Your task to perform on an android device: Go to Reddit.com Image 0: 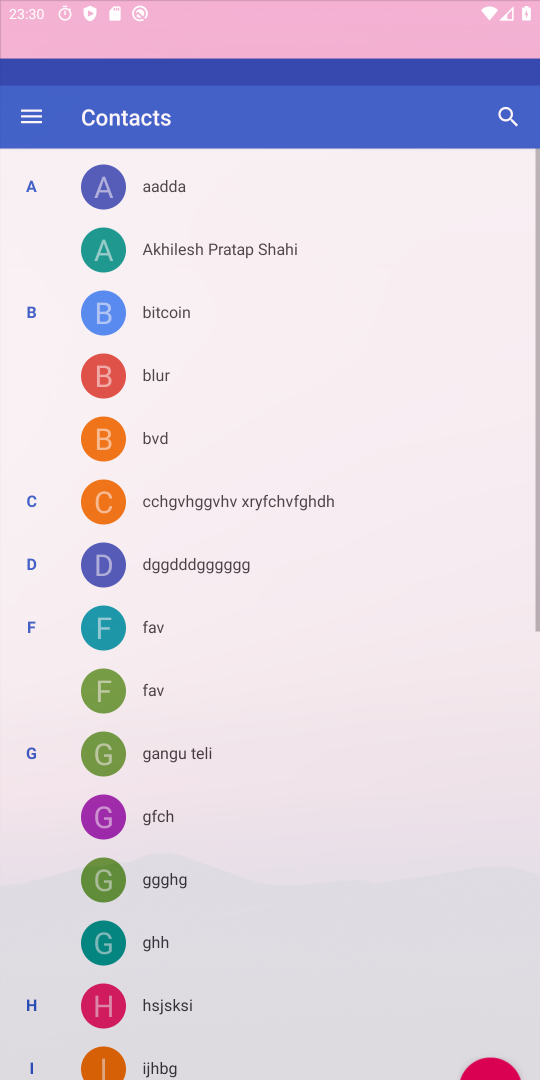
Step 0: press home button
Your task to perform on an android device: Go to Reddit.com Image 1: 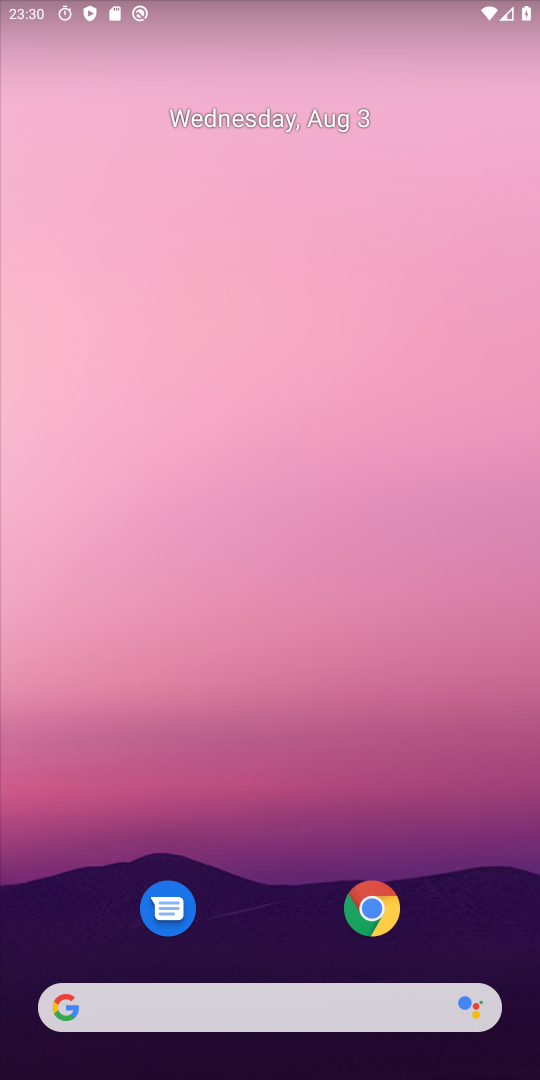
Step 1: drag from (236, 1017) to (137, 373)
Your task to perform on an android device: Go to Reddit.com Image 2: 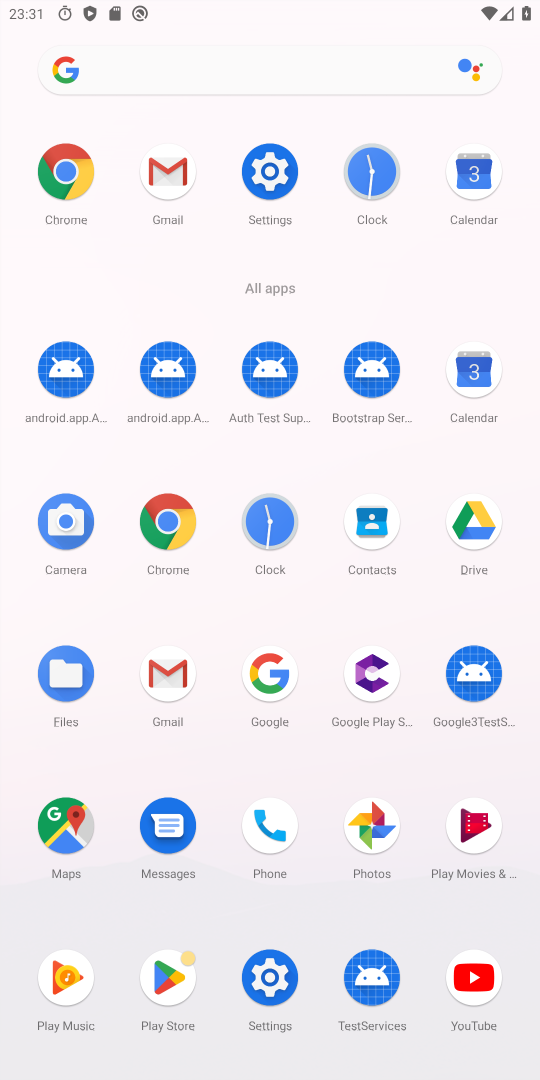
Step 2: click (66, 191)
Your task to perform on an android device: Go to Reddit.com Image 3: 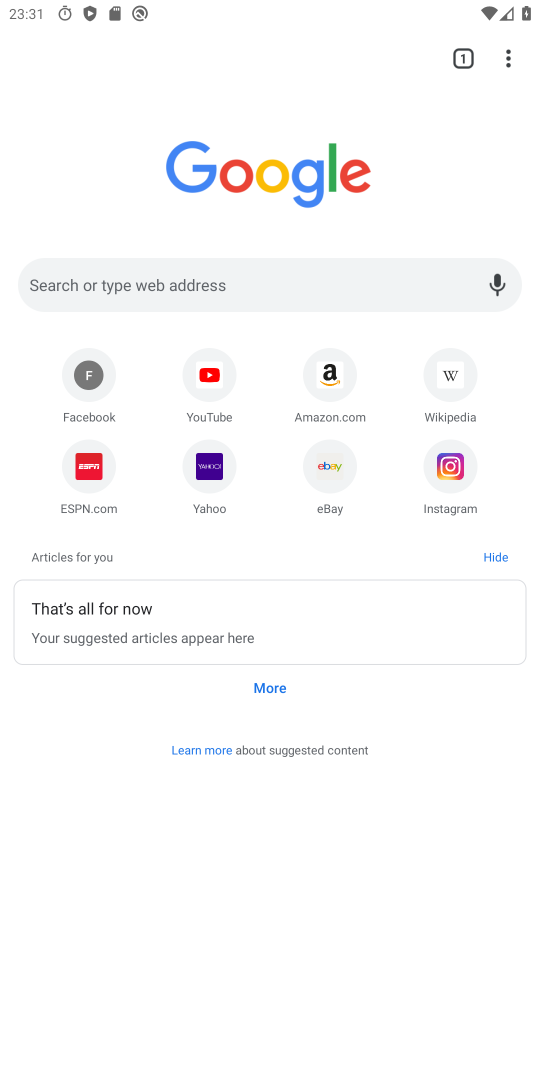
Step 3: click (143, 280)
Your task to perform on an android device: Go to Reddit.com Image 4: 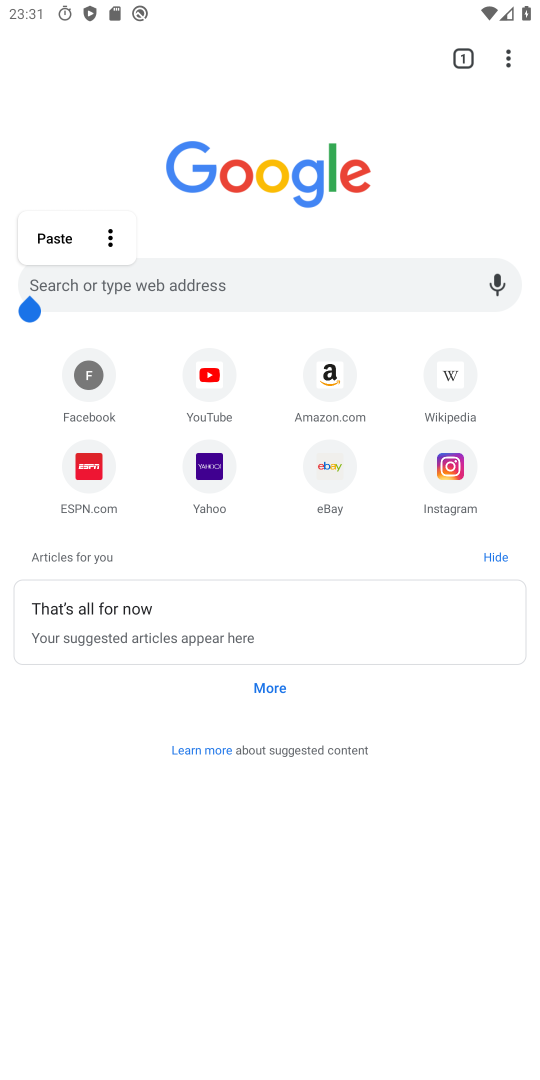
Step 4: click (158, 291)
Your task to perform on an android device: Go to Reddit.com Image 5: 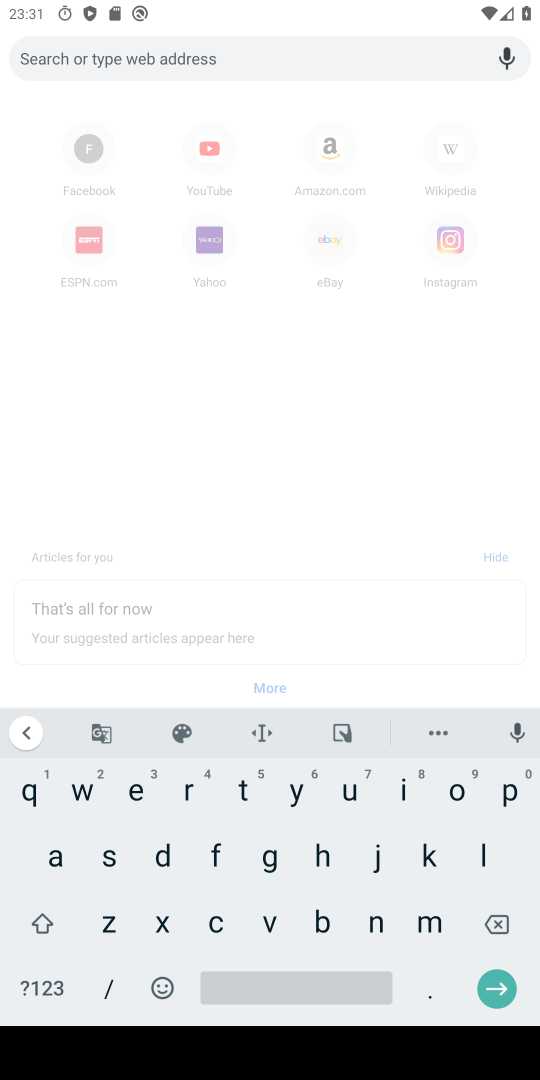
Step 5: click (181, 784)
Your task to perform on an android device: Go to Reddit.com Image 6: 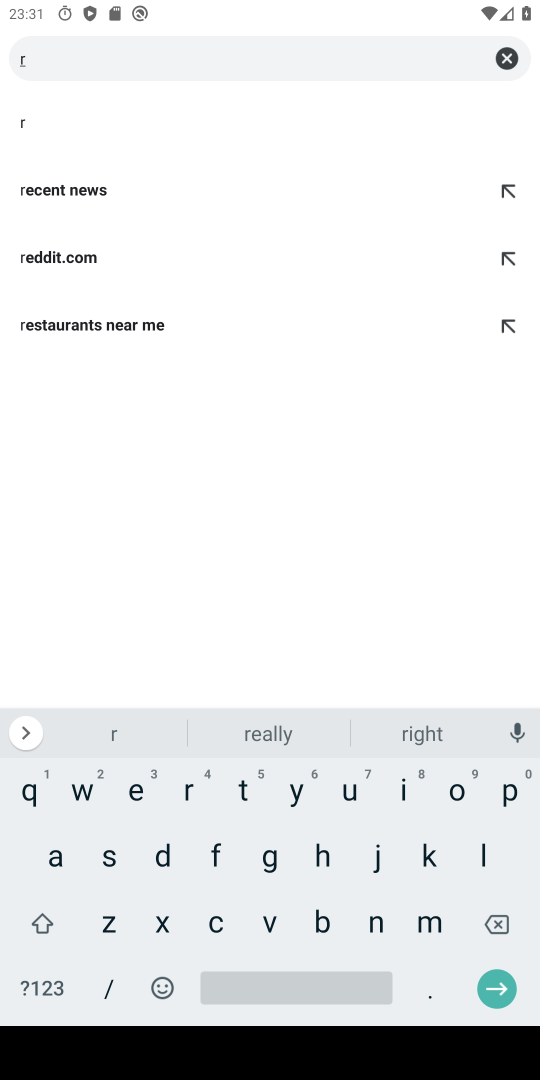
Step 6: click (123, 792)
Your task to perform on an android device: Go to Reddit.com Image 7: 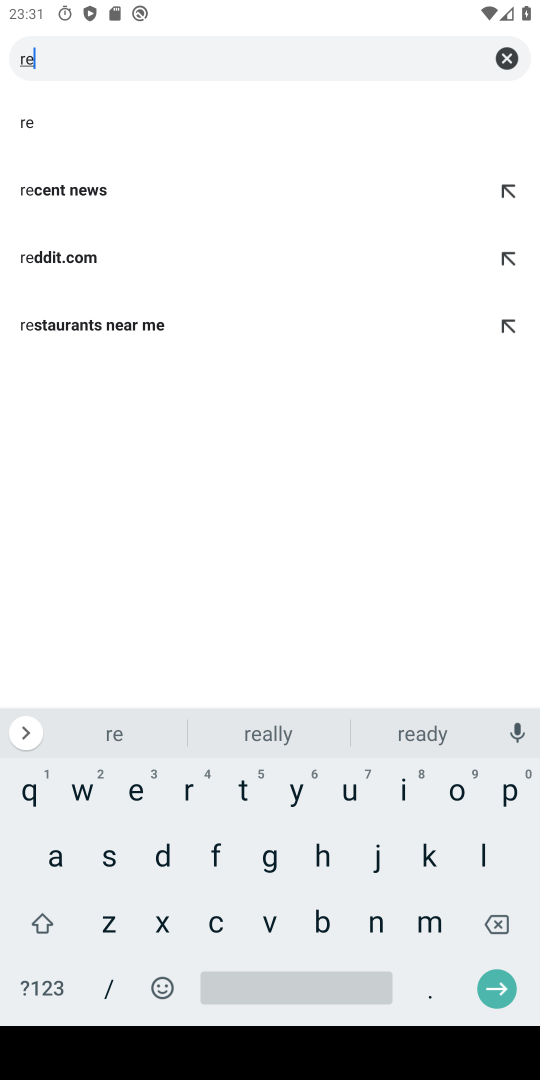
Step 7: click (61, 241)
Your task to perform on an android device: Go to Reddit.com Image 8: 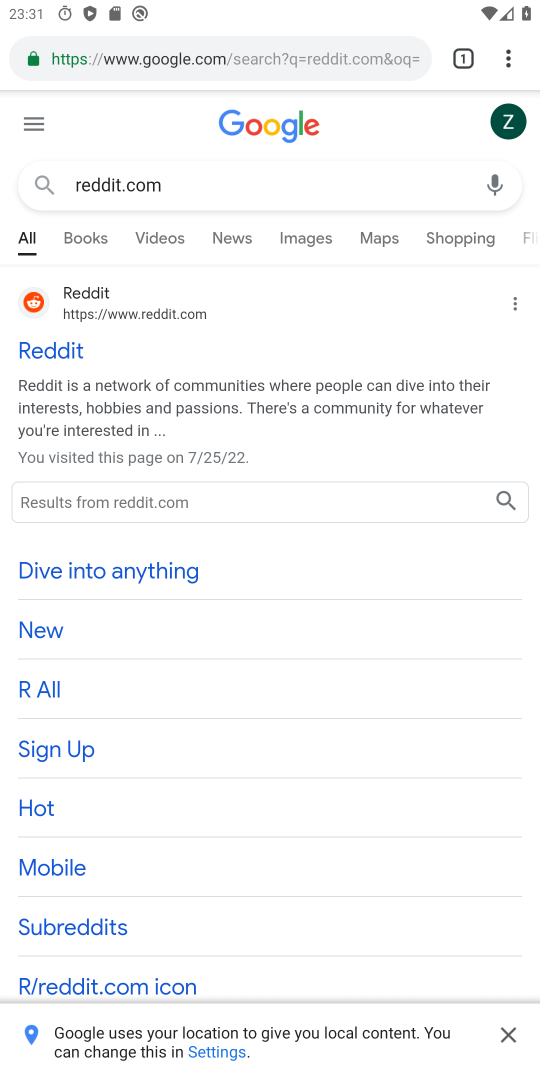
Step 8: click (69, 358)
Your task to perform on an android device: Go to Reddit.com Image 9: 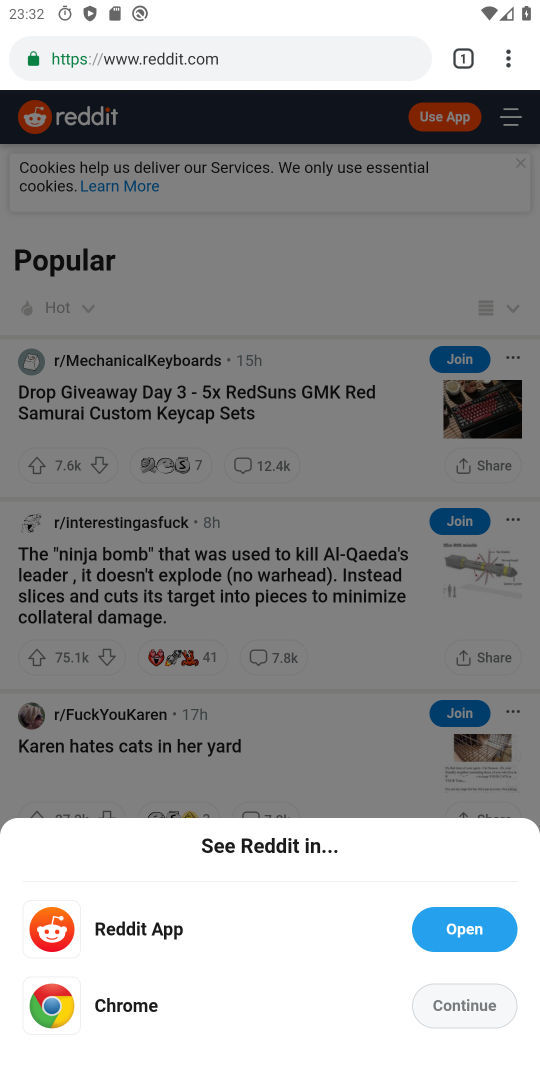
Step 9: click (444, 1007)
Your task to perform on an android device: Go to Reddit.com Image 10: 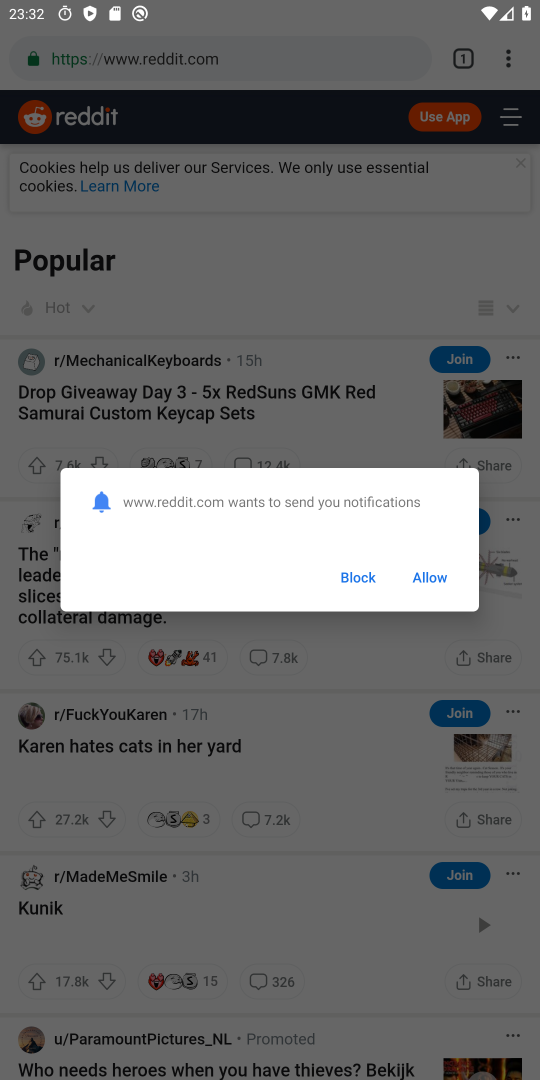
Step 10: click (346, 577)
Your task to perform on an android device: Go to Reddit.com Image 11: 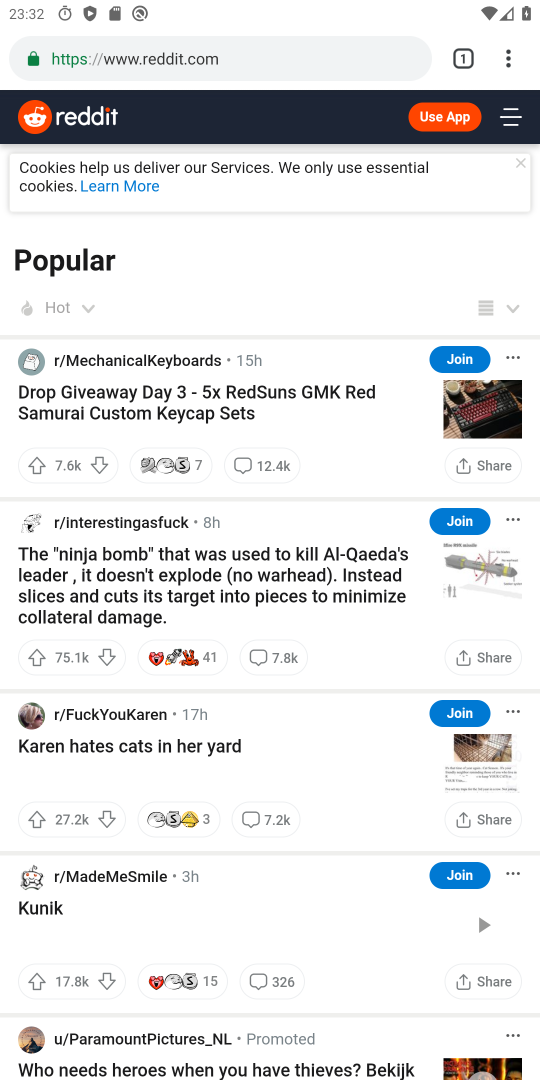
Step 11: task complete